Your task to perform on an android device: add a label to a message in the gmail app Image 0: 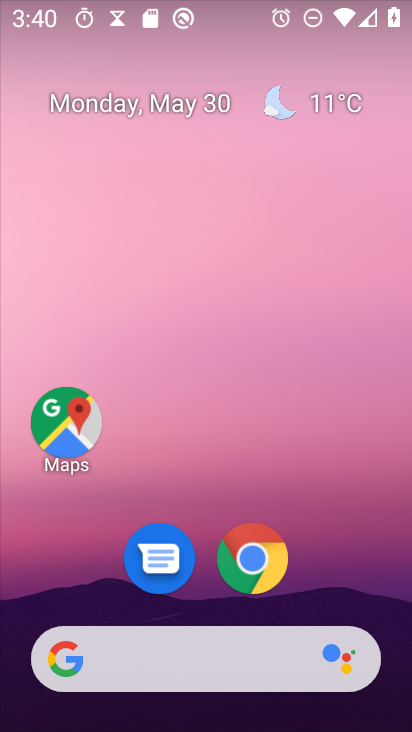
Step 0: drag from (207, 586) to (285, 1)
Your task to perform on an android device: add a label to a message in the gmail app Image 1: 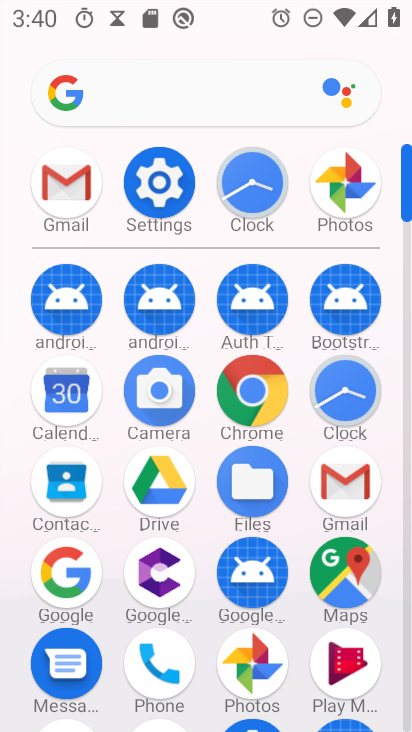
Step 1: click (68, 178)
Your task to perform on an android device: add a label to a message in the gmail app Image 2: 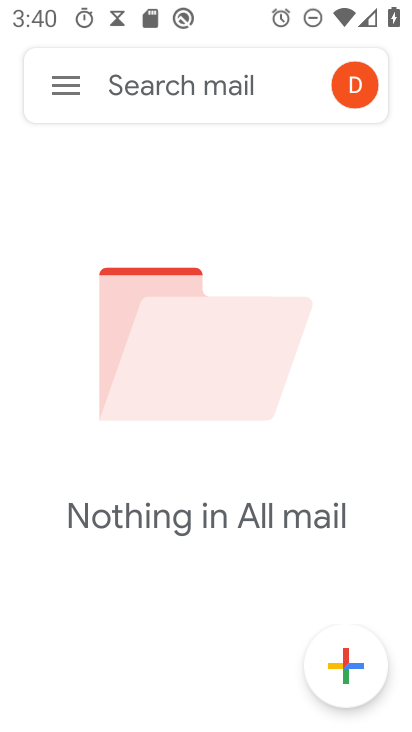
Step 2: click (59, 86)
Your task to perform on an android device: add a label to a message in the gmail app Image 3: 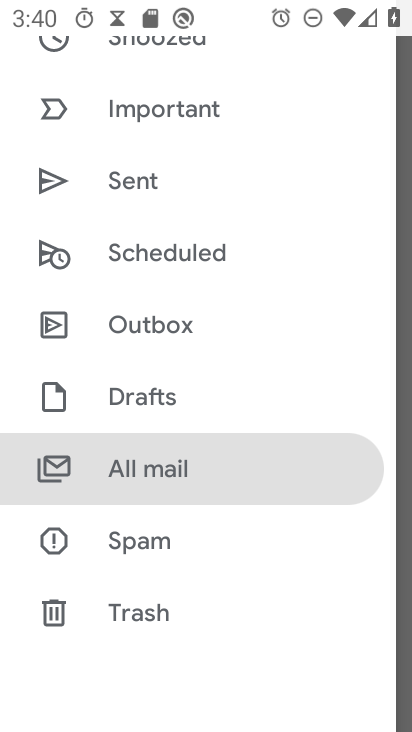
Step 3: click (151, 462)
Your task to perform on an android device: add a label to a message in the gmail app Image 4: 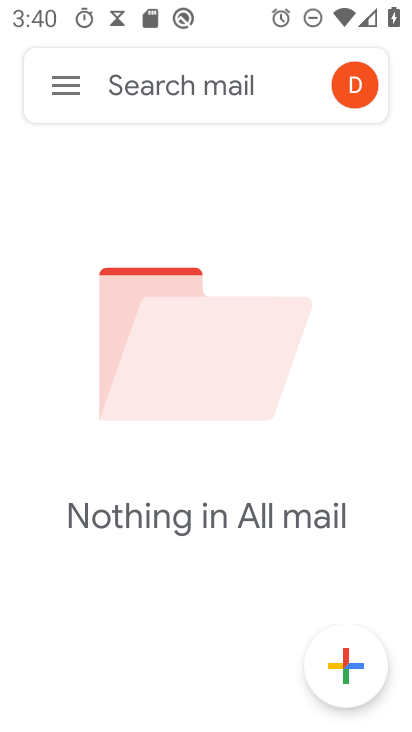
Step 4: task complete